Your task to perform on an android device: change text size in settings app Image 0: 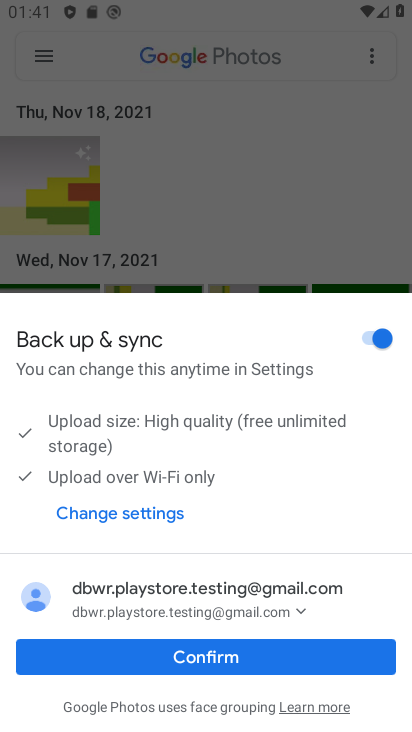
Step 0: press home button
Your task to perform on an android device: change text size in settings app Image 1: 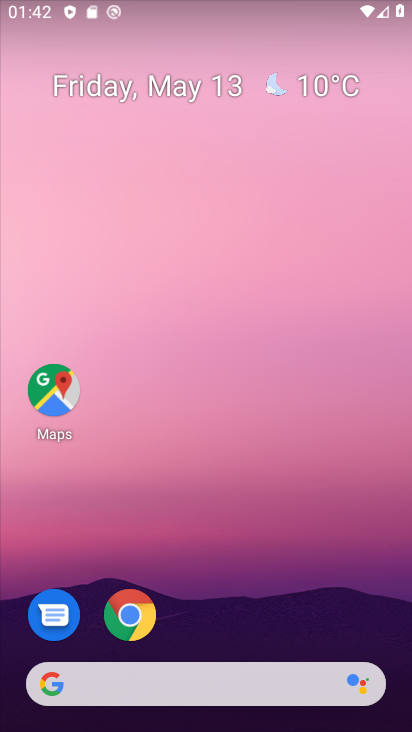
Step 1: drag from (245, 551) to (193, 186)
Your task to perform on an android device: change text size in settings app Image 2: 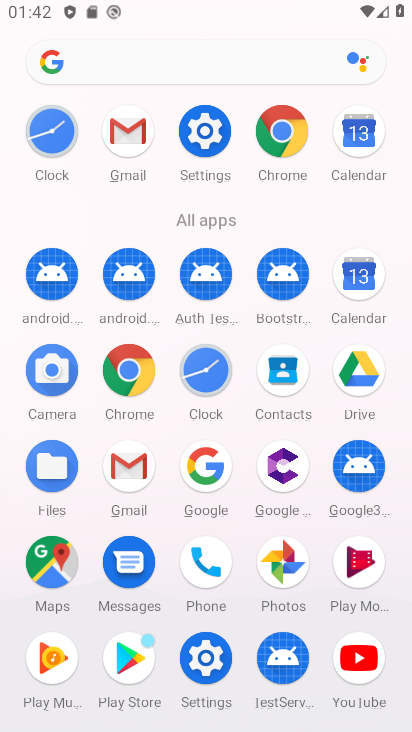
Step 2: click (228, 120)
Your task to perform on an android device: change text size in settings app Image 3: 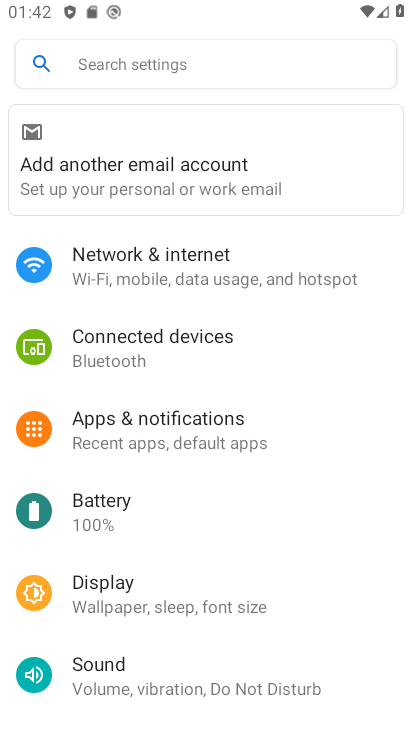
Step 3: click (145, 604)
Your task to perform on an android device: change text size in settings app Image 4: 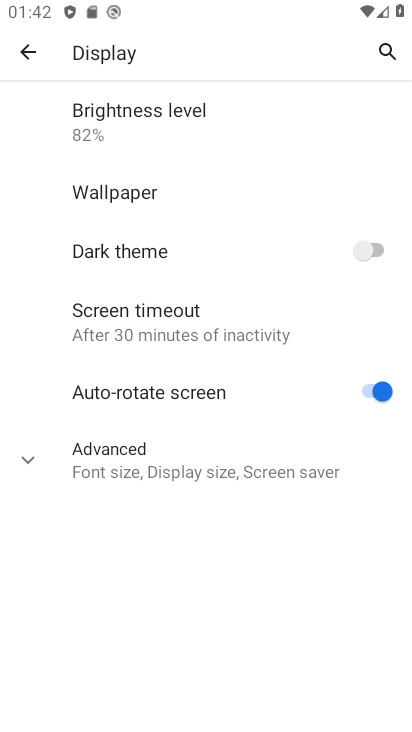
Step 4: click (144, 477)
Your task to perform on an android device: change text size in settings app Image 5: 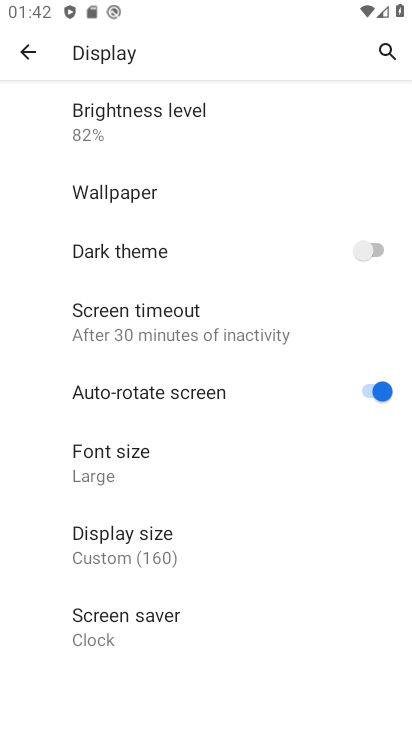
Step 5: click (114, 472)
Your task to perform on an android device: change text size in settings app Image 6: 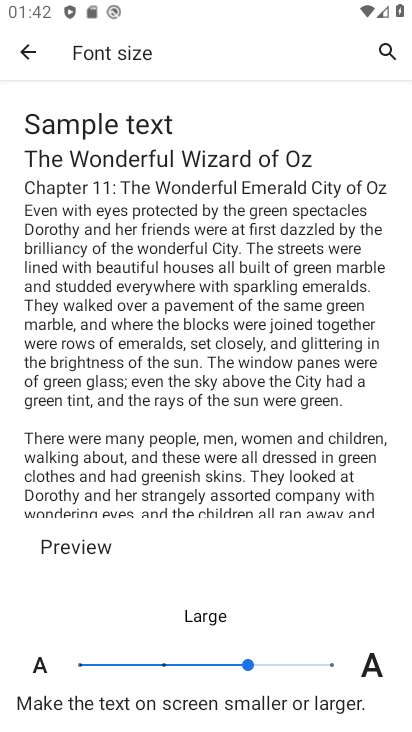
Step 6: click (76, 662)
Your task to perform on an android device: change text size in settings app Image 7: 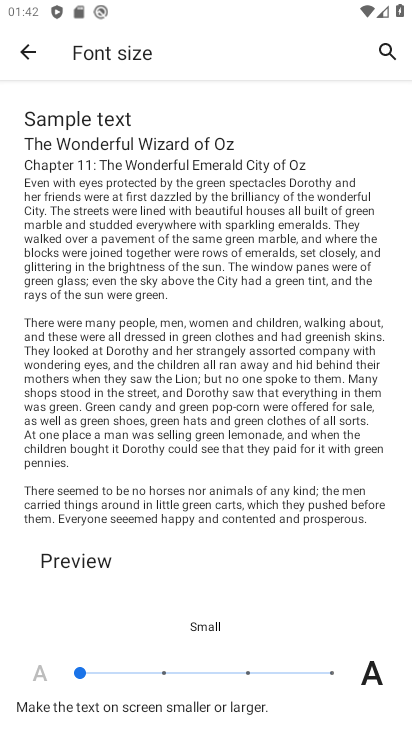
Step 7: task complete